Your task to perform on an android device: create a new album in the google photos Image 0: 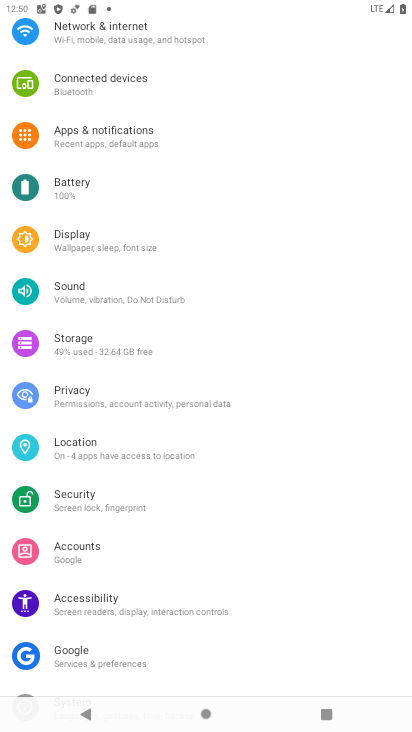
Step 0: press home button
Your task to perform on an android device: create a new album in the google photos Image 1: 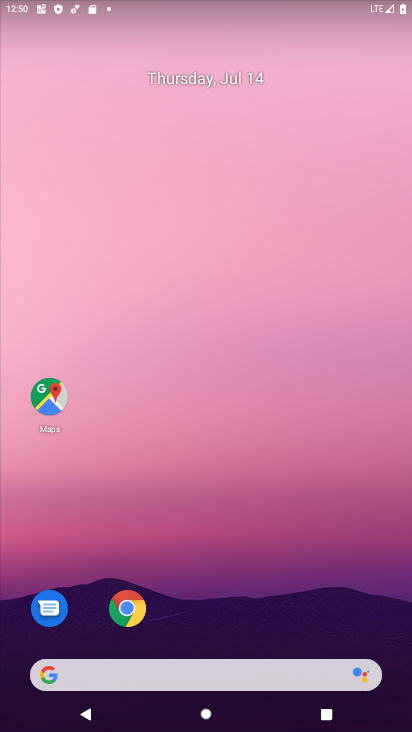
Step 1: drag from (40, 597) to (283, 133)
Your task to perform on an android device: create a new album in the google photos Image 2: 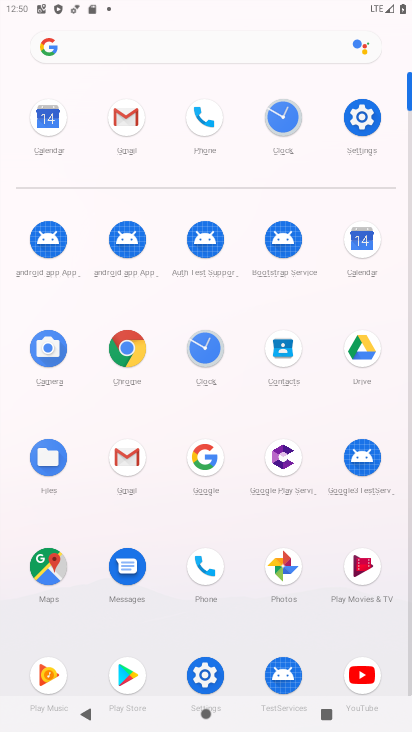
Step 2: click (280, 558)
Your task to perform on an android device: create a new album in the google photos Image 3: 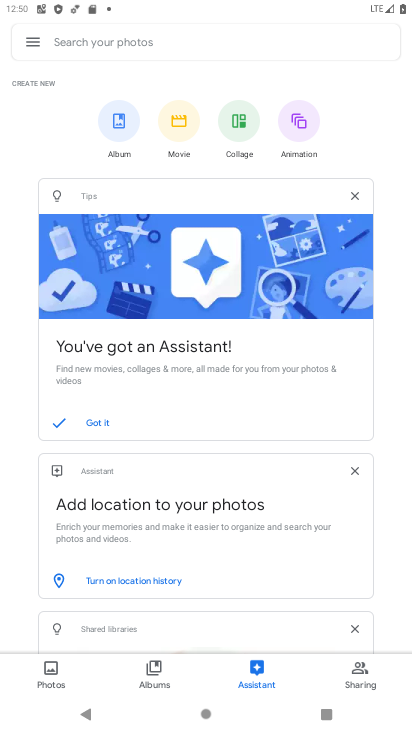
Step 3: click (43, 682)
Your task to perform on an android device: create a new album in the google photos Image 4: 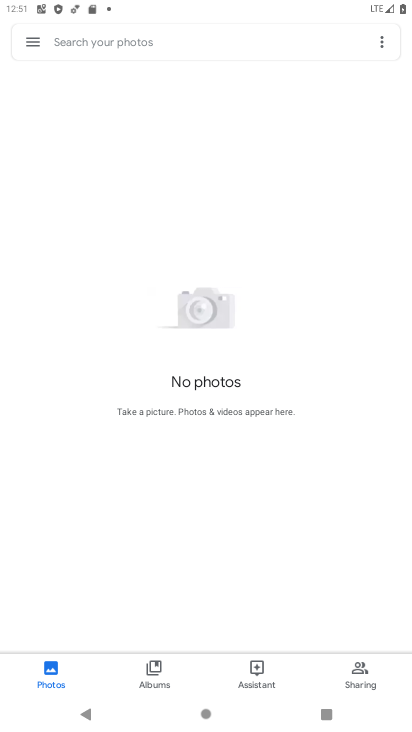
Step 4: click (384, 42)
Your task to perform on an android device: create a new album in the google photos Image 5: 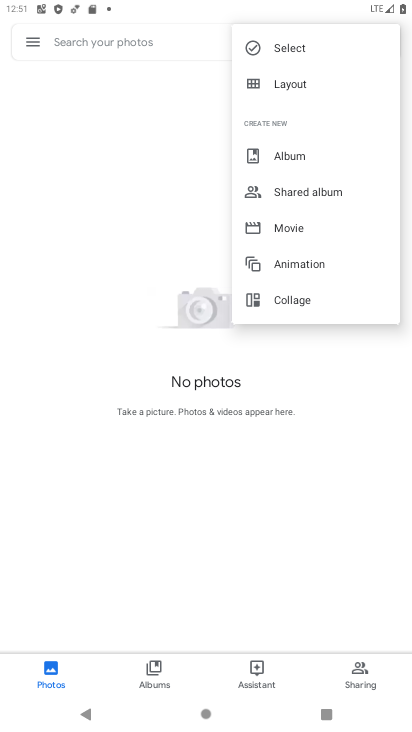
Step 5: click (325, 155)
Your task to perform on an android device: create a new album in the google photos Image 6: 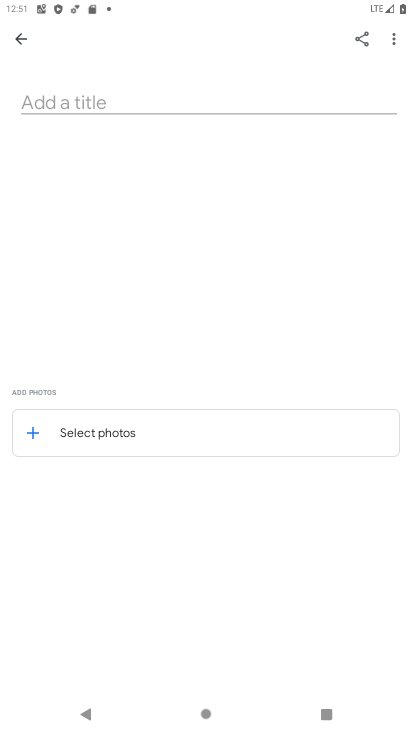
Step 6: task complete